Your task to perform on an android device: Open the calendar and show me this week's events? Image 0: 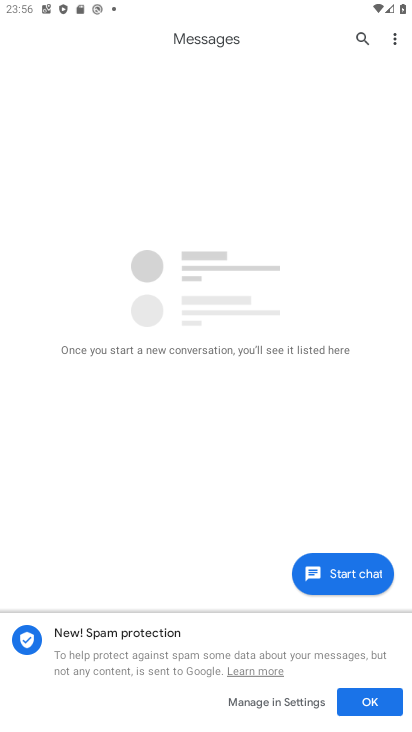
Step 0: press home button
Your task to perform on an android device: Open the calendar and show me this week's events? Image 1: 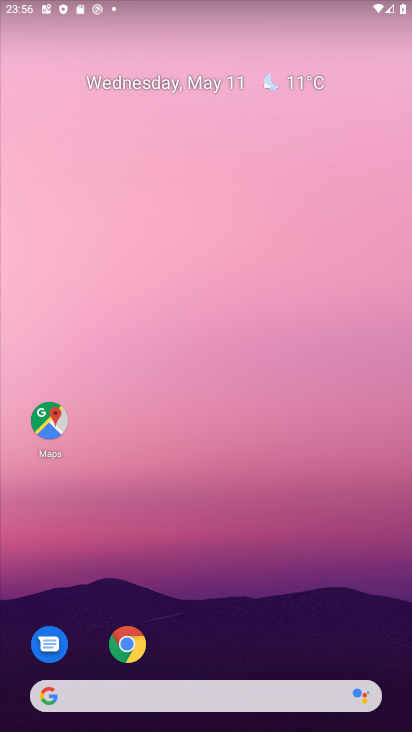
Step 1: drag from (210, 664) to (210, 158)
Your task to perform on an android device: Open the calendar and show me this week's events? Image 2: 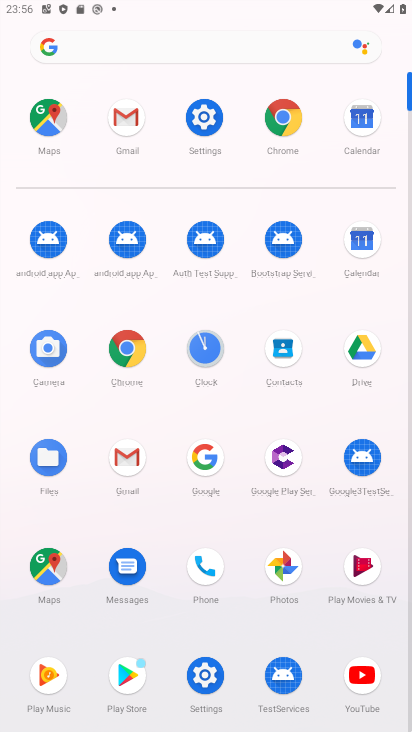
Step 2: click (357, 234)
Your task to perform on an android device: Open the calendar and show me this week's events? Image 3: 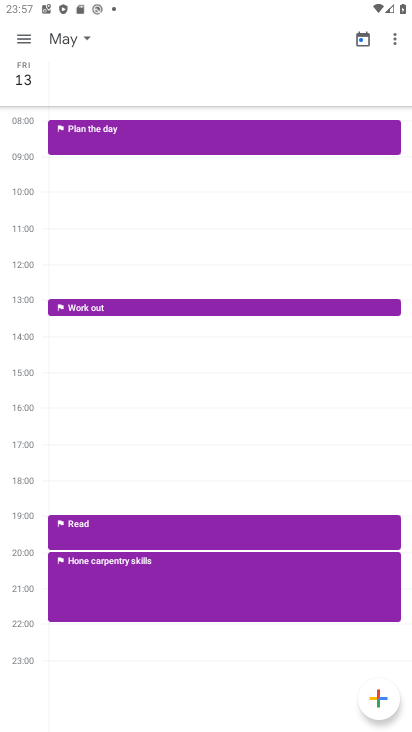
Step 3: click (23, 41)
Your task to perform on an android device: Open the calendar and show me this week's events? Image 4: 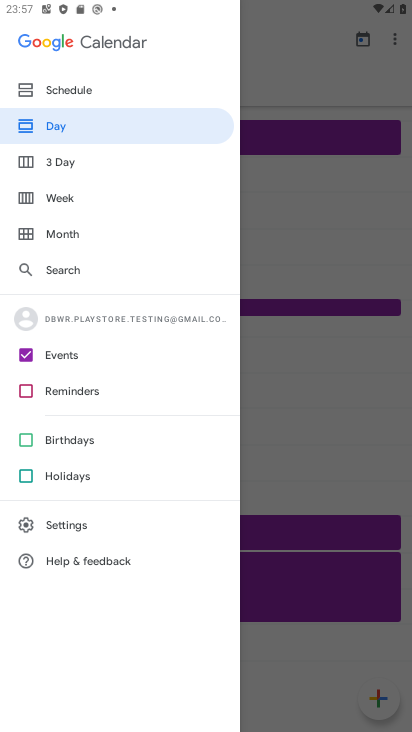
Step 4: click (70, 191)
Your task to perform on an android device: Open the calendar and show me this week's events? Image 5: 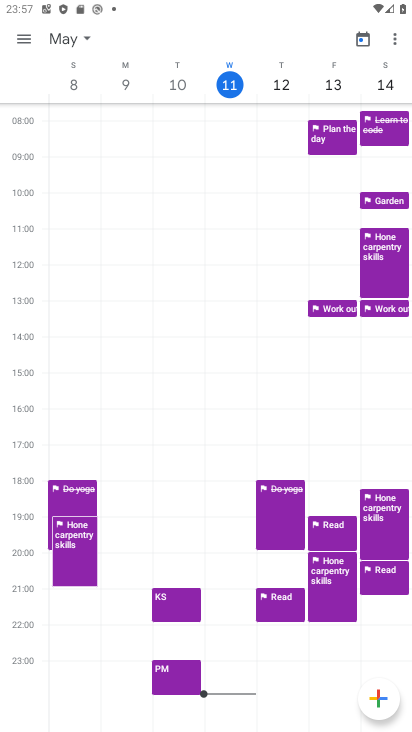
Step 5: drag from (385, 89) to (4, 83)
Your task to perform on an android device: Open the calendar and show me this week's events? Image 6: 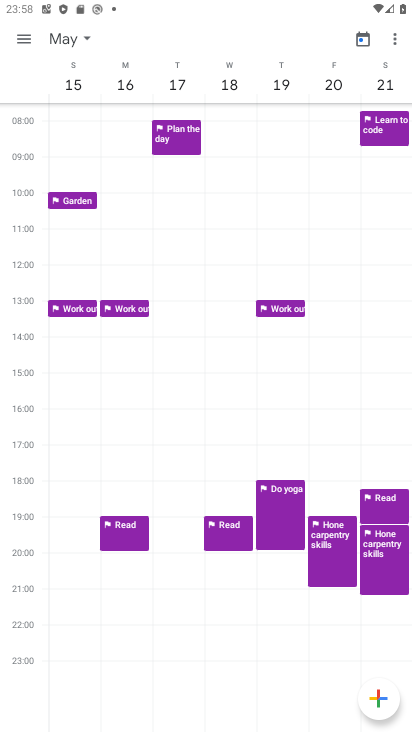
Step 6: drag from (68, 84) to (409, 100)
Your task to perform on an android device: Open the calendar and show me this week's events? Image 7: 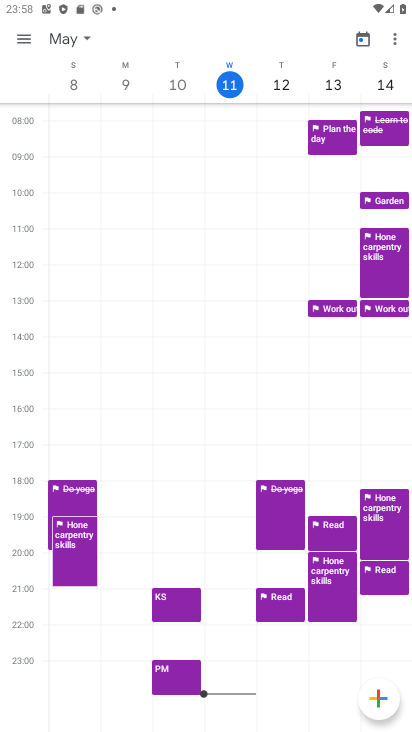
Step 7: click (219, 78)
Your task to perform on an android device: Open the calendar and show me this week's events? Image 8: 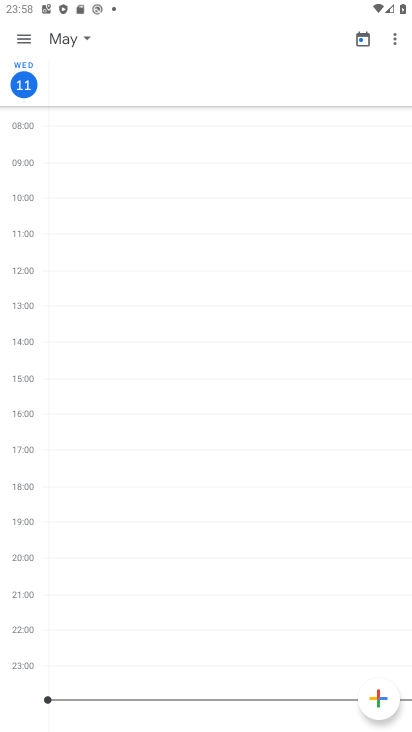
Step 8: click (32, 99)
Your task to perform on an android device: Open the calendar and show me this week's events? Image 9: 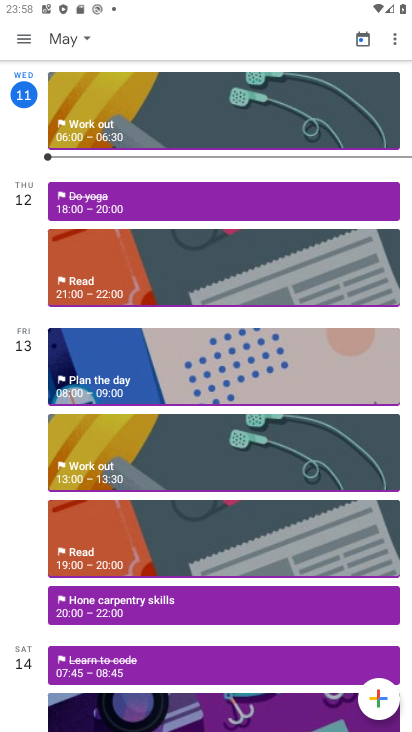
Step 9: click (22, 41)
Your task to perform on an android device: Open the calendar and show me this week's events? Image 10: 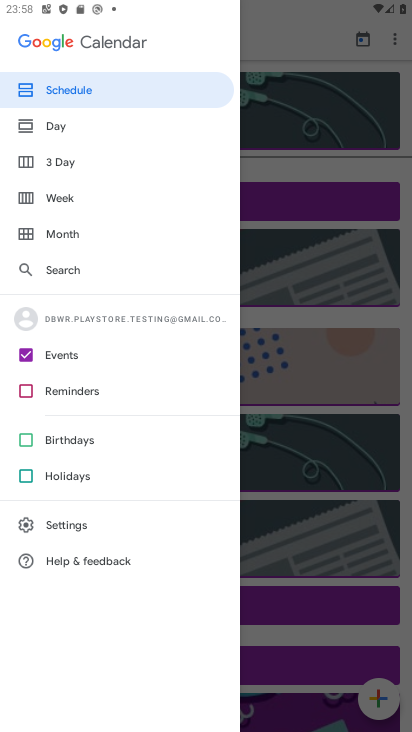
Step 10: click (74, 97)
Your task to perform on an android device: Open the calendar and show me this week's events? Image 11: 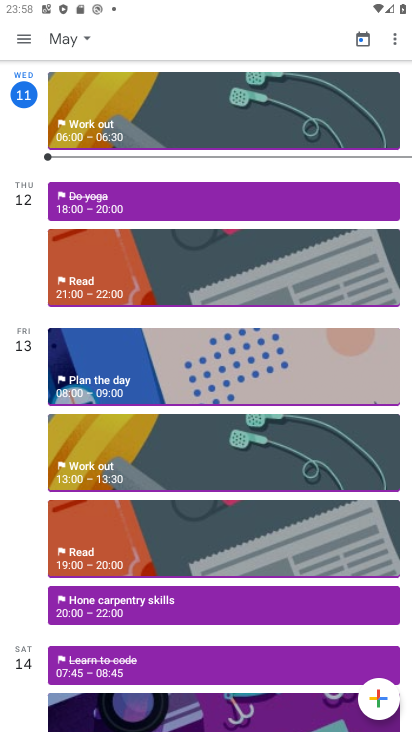
Step 11: drag from (36, 409) to (31, 235)
Your task to perform on an android device: Open the calendar and show me this week's events? Image 12: 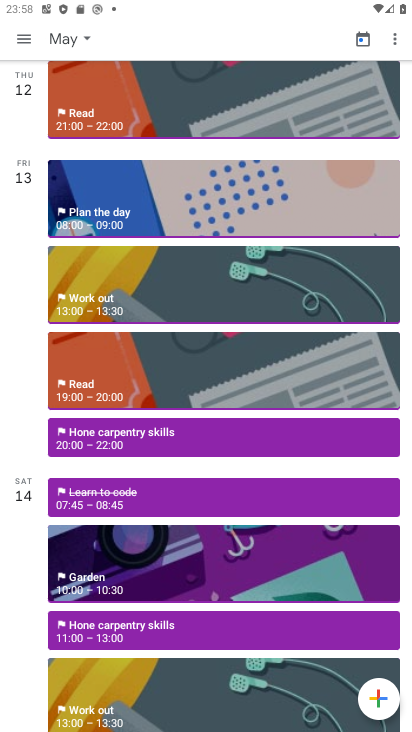
Step 12: click (30, 109)
Your task to perform on an android device: Open the calendar and show me this week's events? Image 13: 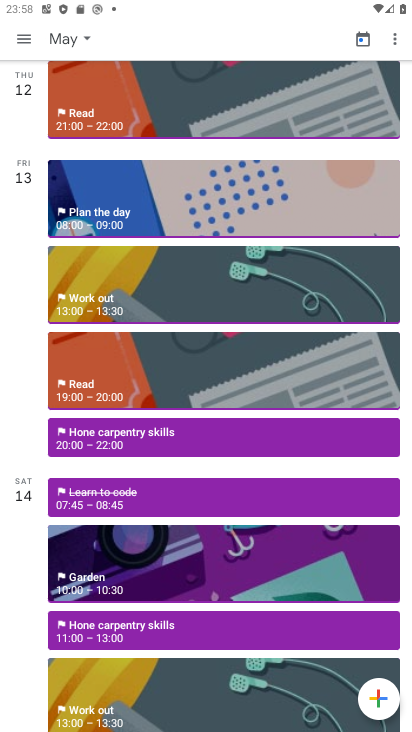
Step 13: task complete